Your task to perform on an android device: Search for pizza restaurants on Maps Image 0: 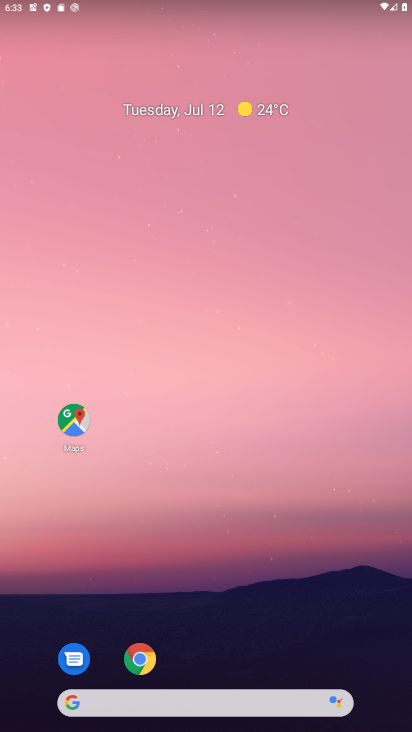
Step 0: drag from (373, 699) to (309, 50)
Your task to perform on an android device: Search for pizza restaurants on Maps Image 1: 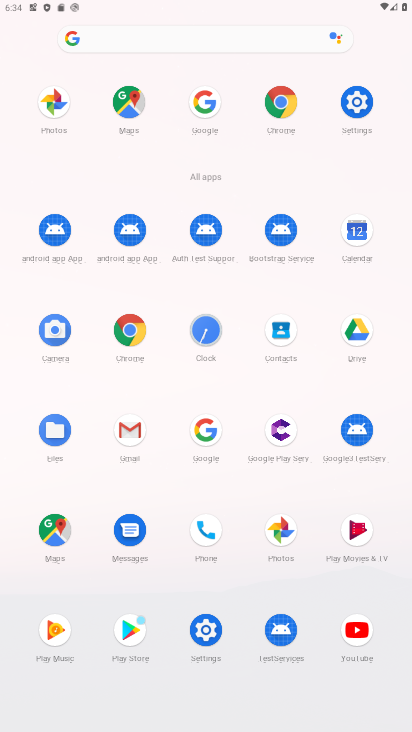
Step 1: click (62, 535)
Your task to perform on an android device: Search for pizza restaurants on Maps Image 2: 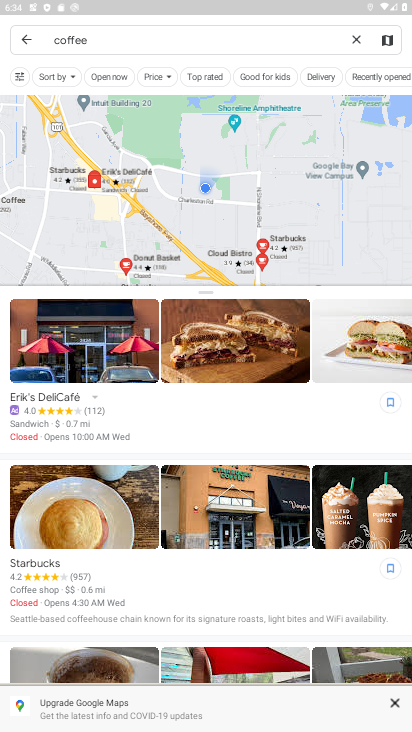
Step 2: click (357, 39)
Your task to perform on an android device: Search for pizza restaurants on Maps Image 3: 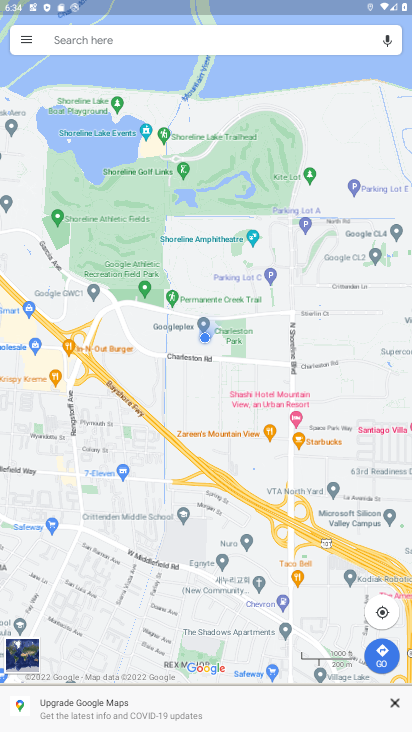
Step 3: click (85, 39)
Your task to perform on an android device: Search for pizza restaurants on Maps Image 4: 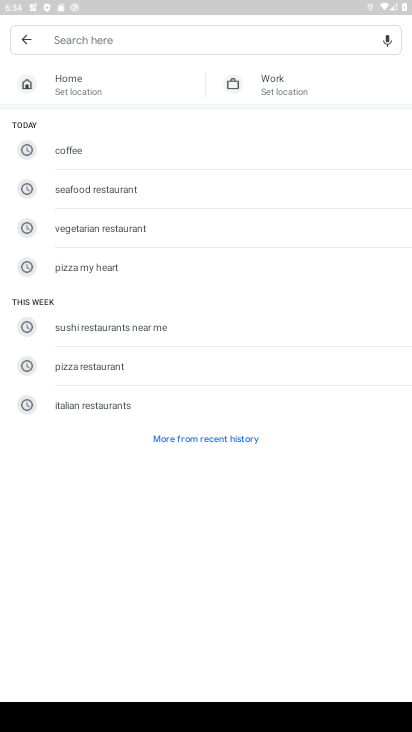
Step 4: click (75, 370)
Your task to perform on an android device: Search for pizza restaurants on Maps Image 5: 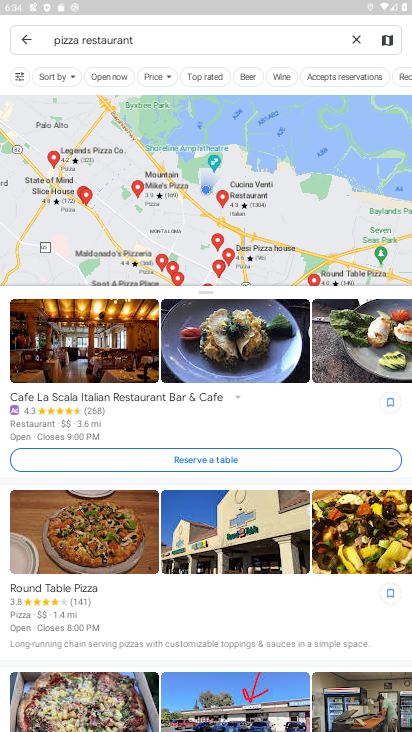
Step 5: task complete